Your task to perform on an android device: toggle notification dots Image 0: 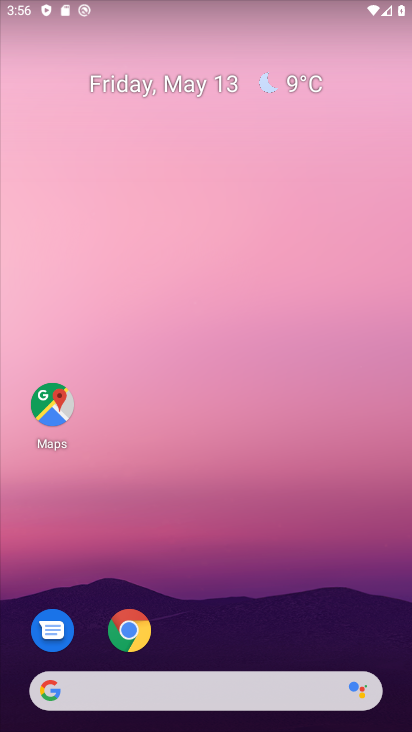
Step 0: drag from (287, 571) to (237, 64)
Your task to perform on an android device: toggle notification dots Image 1: 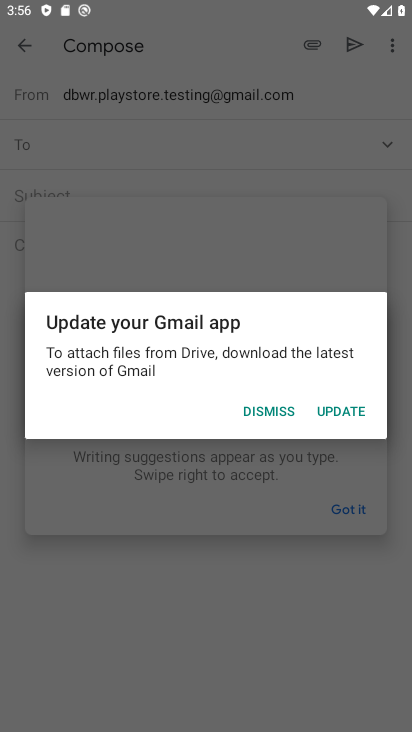
Step 1: press back button
Your task to perform on an android device: toggle notification dots Image 2: 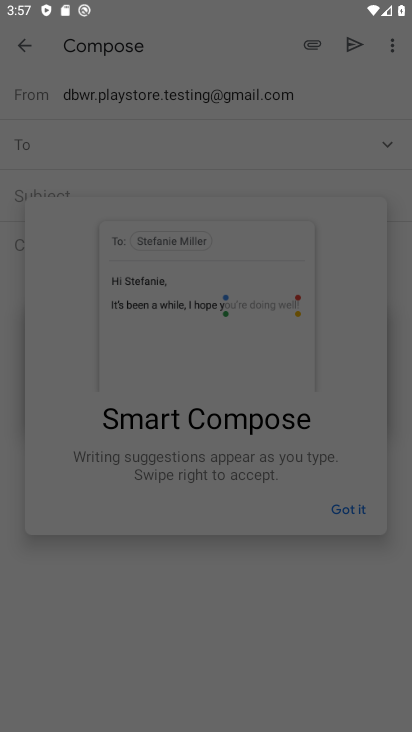
Step 2: press back button
Your task to perform on an android device: toggle notification dots Image 3: 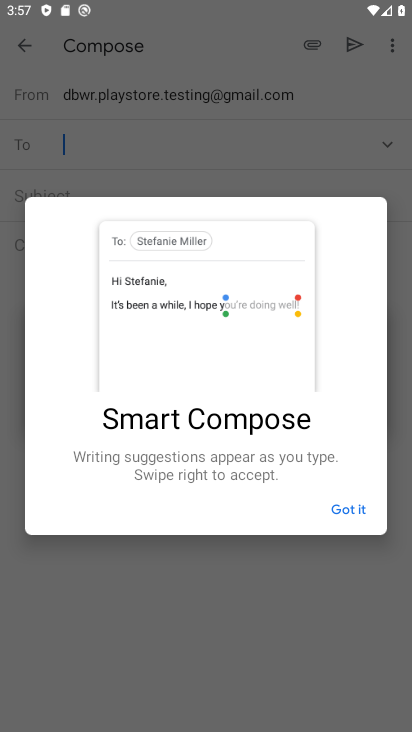
Step 3: press home button
Your task to perform on an android device: toggle notification dots Image 4: 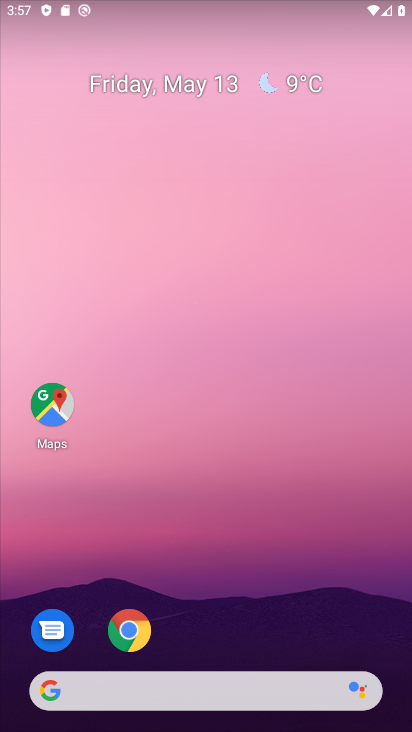
Step 4: drag from (224, 598) to (224, 12)
Your task to perform on an android device: toggle notification dots Image 5: 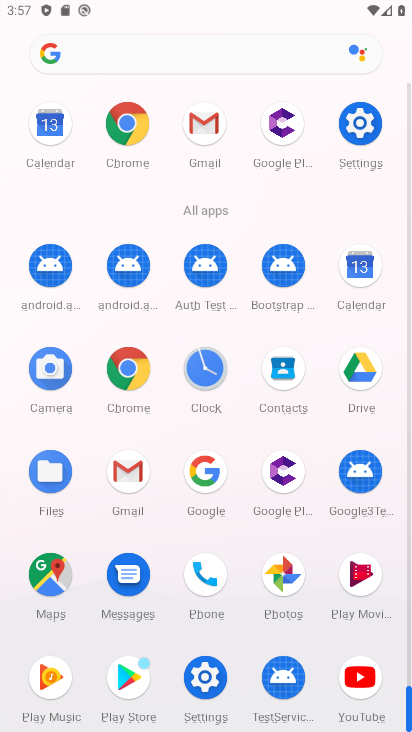
Step 5: click (202, 676)
Your task to perform on an android device: toggle notification dots Image 6: 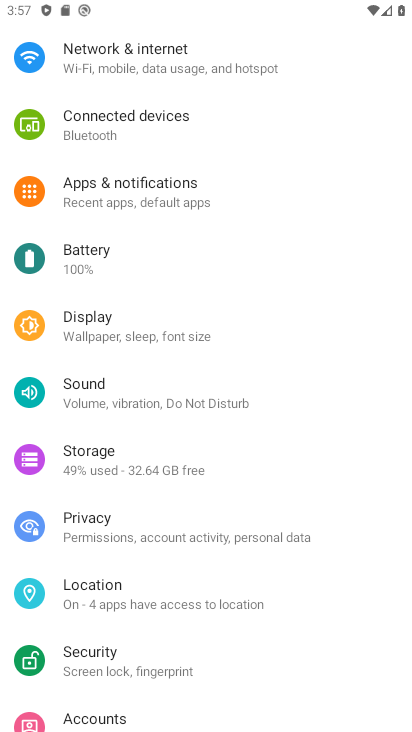
Step 6: click (177, 183)
Your task to perform on an android device: toggle notification dots Image 7: 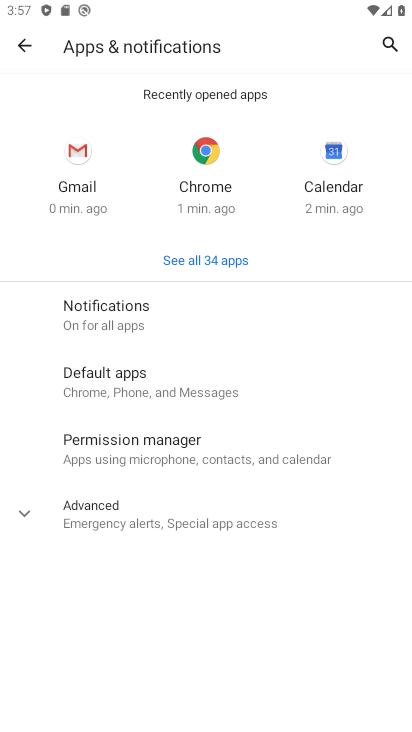
Step 7: click (48, 511)
Your task to perform on an android device: toggle notification dots Image 8: 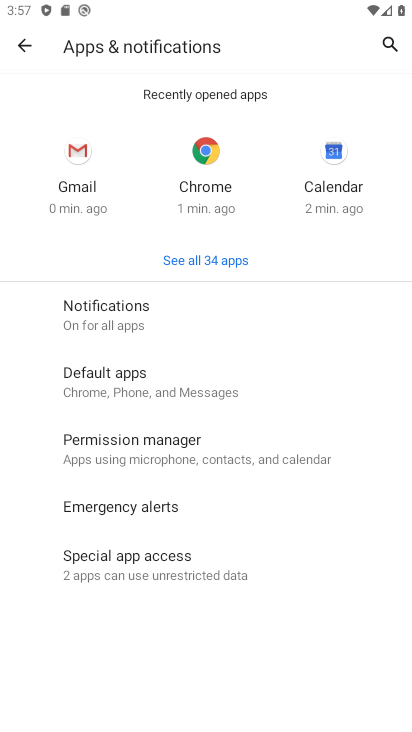
Step 8: click (153, 324)
Your task to perform on an android device: toggle notification dots Image 9: 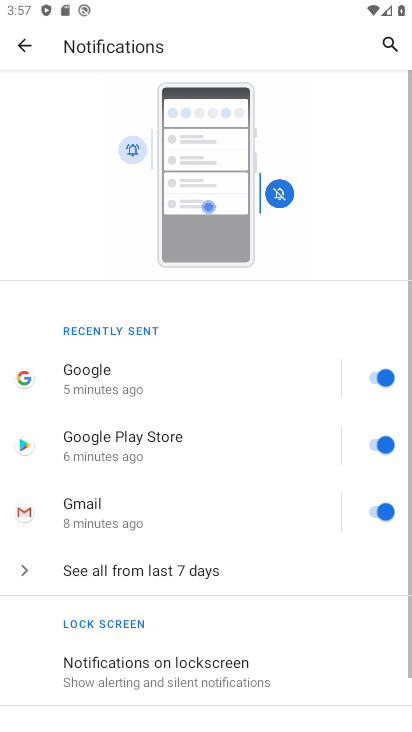
Step 9: drag from (263, 629) to (268, 133)
Your task to perform on an android device: toggle notification dots Image 10: 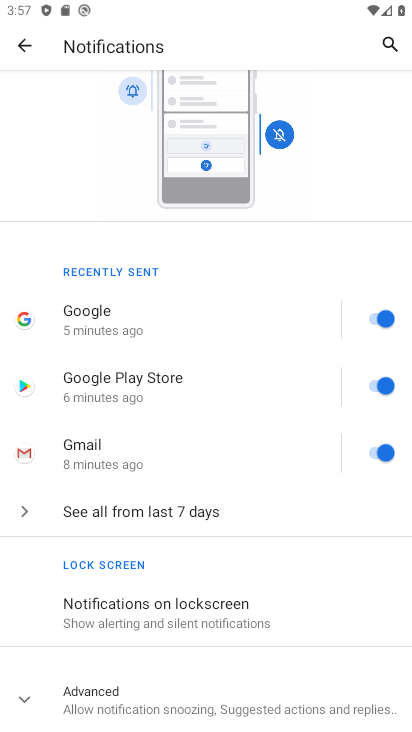
Step 10: drag from (246, 581) to (236, 388)
Your task to perform on an android device: toggle notification dots Image 11: 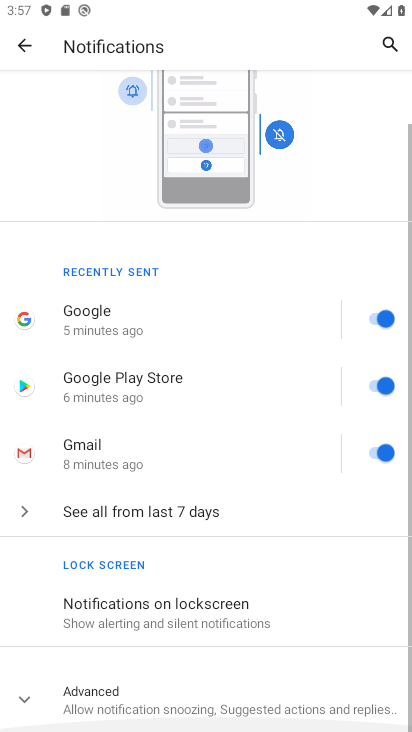
Step 11: click (37, 700)
Your task to perform on an android device: toggle notification dots Image 12: 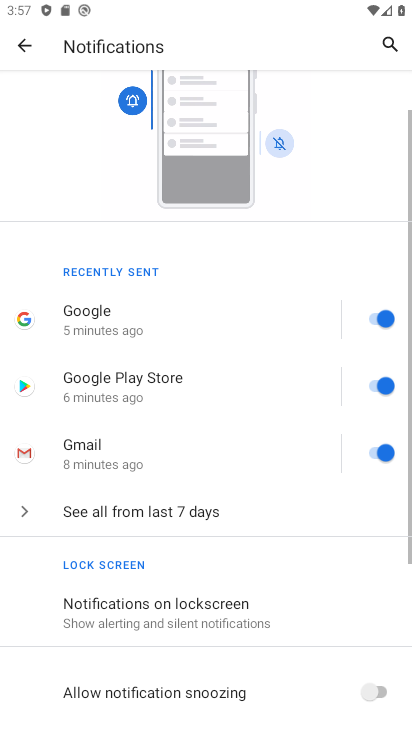
Step 12: drag from (215, 658) to (283, 202)
Your task to perform on an android device: toggle notification dots Image 13: 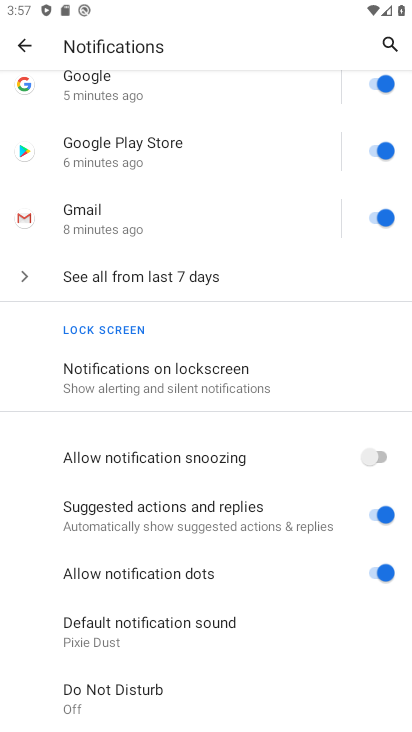
Step 13: click (385, 571)
Your task to perform on an android device: toggle notification dots Image 14: 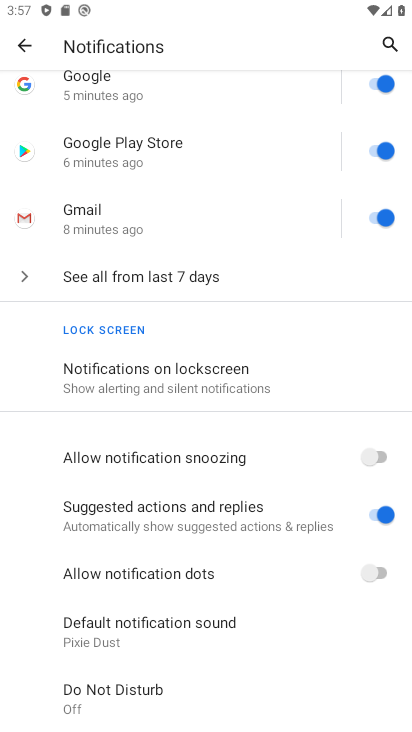
Step 14: task complete